Your task to perform on an android device: Open Youtube and go to the subscriptions tab Image 0: 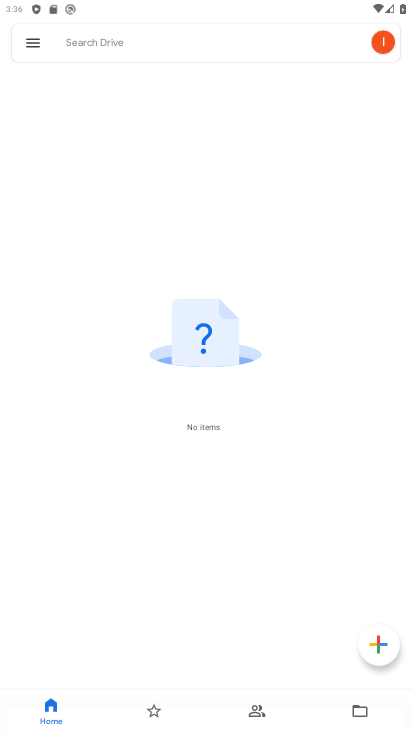
Step 0: press back button
Your task to perform on an android device: Open Youtube and go to the subscriptions tab Image 1: 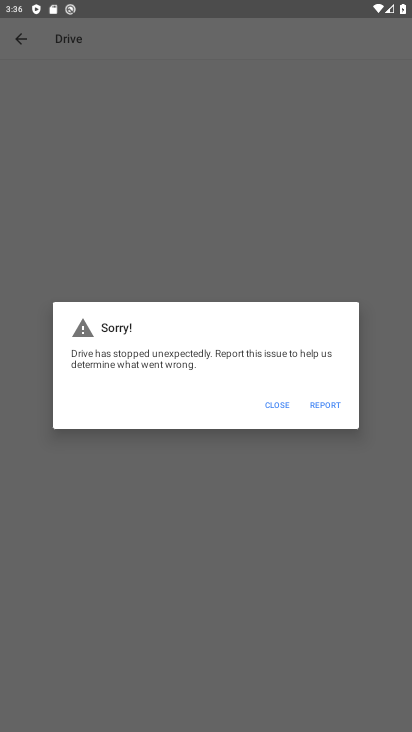
Step 1: press back button
Your task to perform on an android device: Open Youtube and go to the subscriptions tab Image 2: 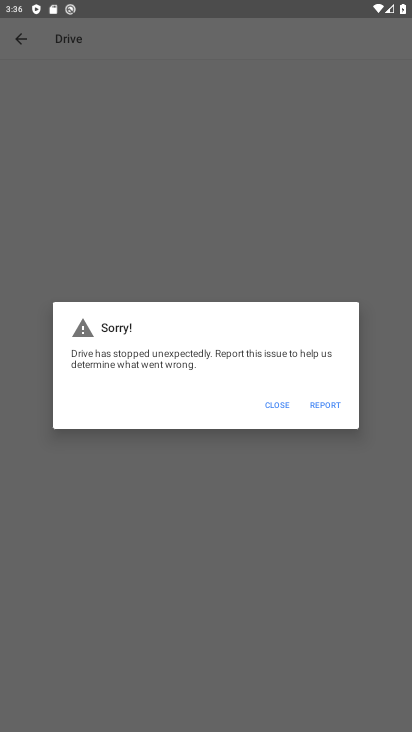
Step 2: press home button
Your task to perform on an android device: Open Youtube and go to the subscriptions tab Image 3: 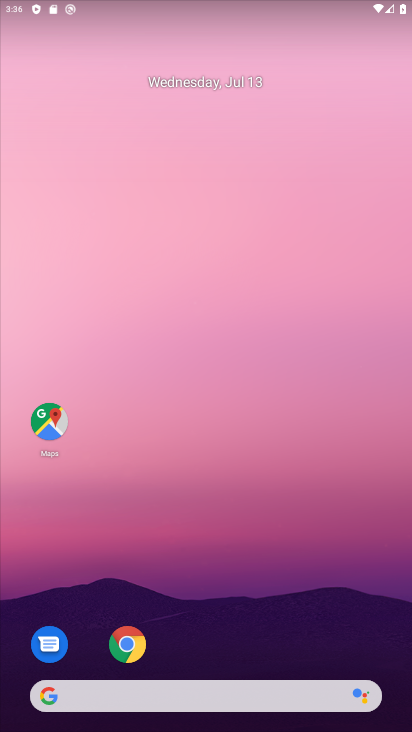
Step 3: drag from (237, 593) to (308, 45)
Your task to perform on an android device: Open Youtube and go to the subscriptions tab Image 4: 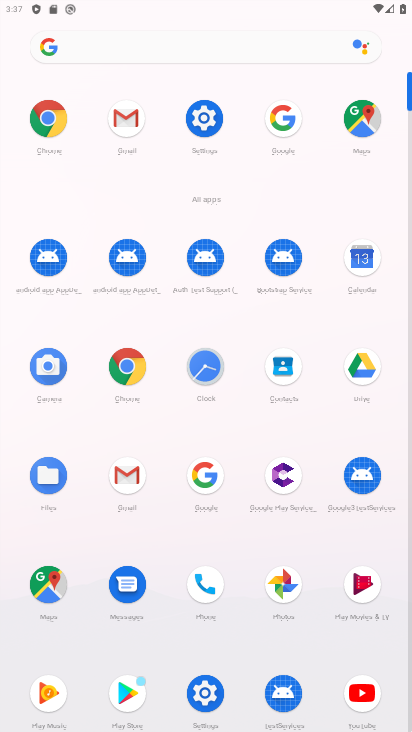
Step 4: click (359, 688)
Your task to perform on an android device: Open Youtube and go to the subscriptions tab Image 5: 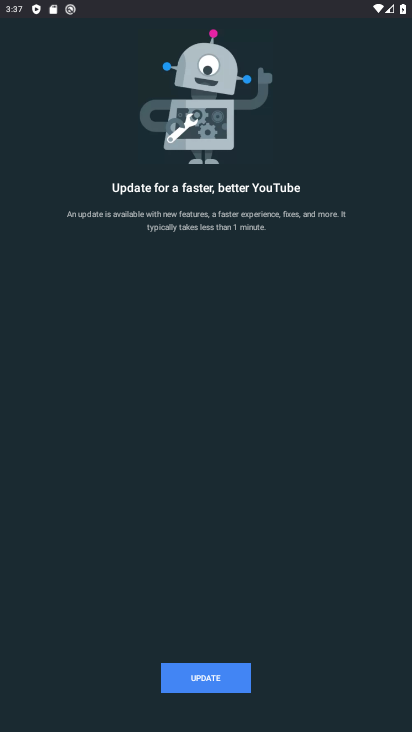
Step 5: task complete